Your task to perform on an android device: install app "WhatsApp Messenger" Image 0: 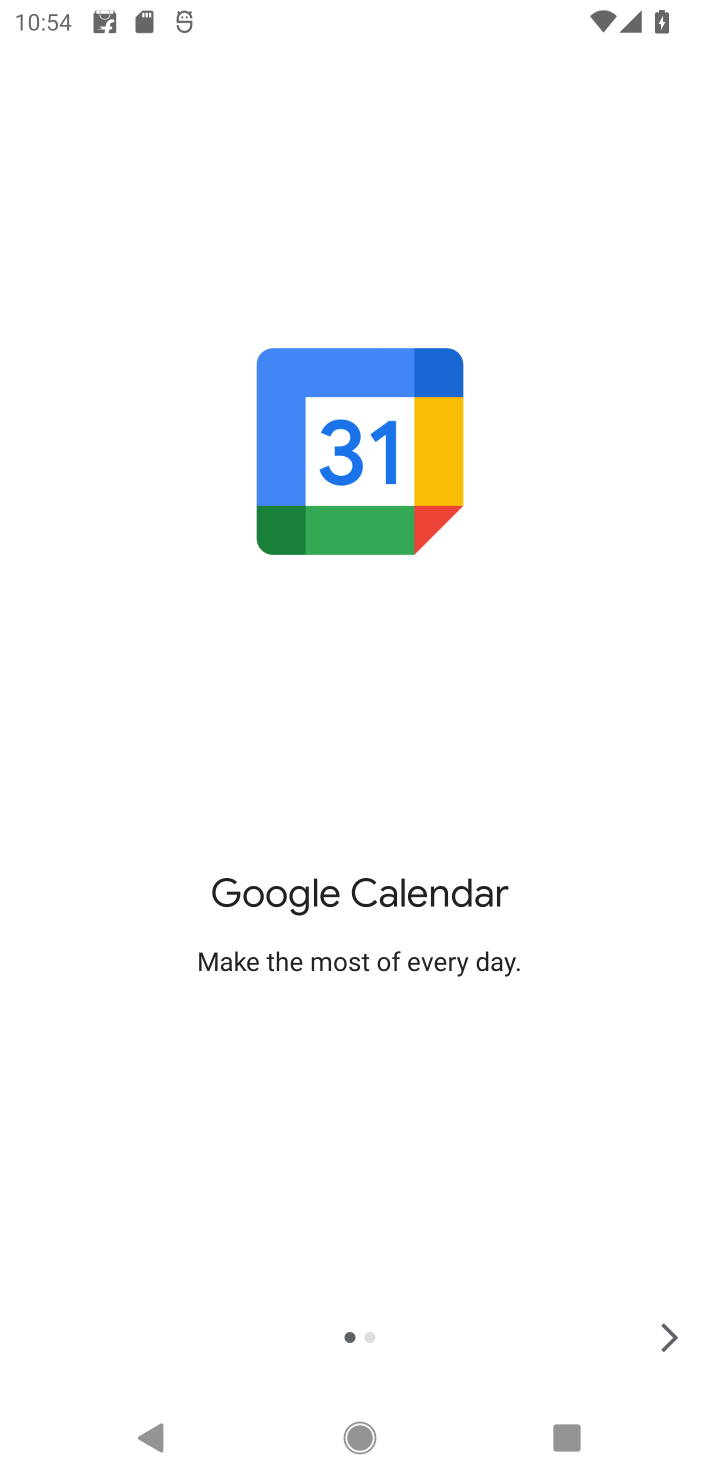
Step 0: press home button
Your task to perform on an android device: install app "WhatsApp Messenger" Image 1: 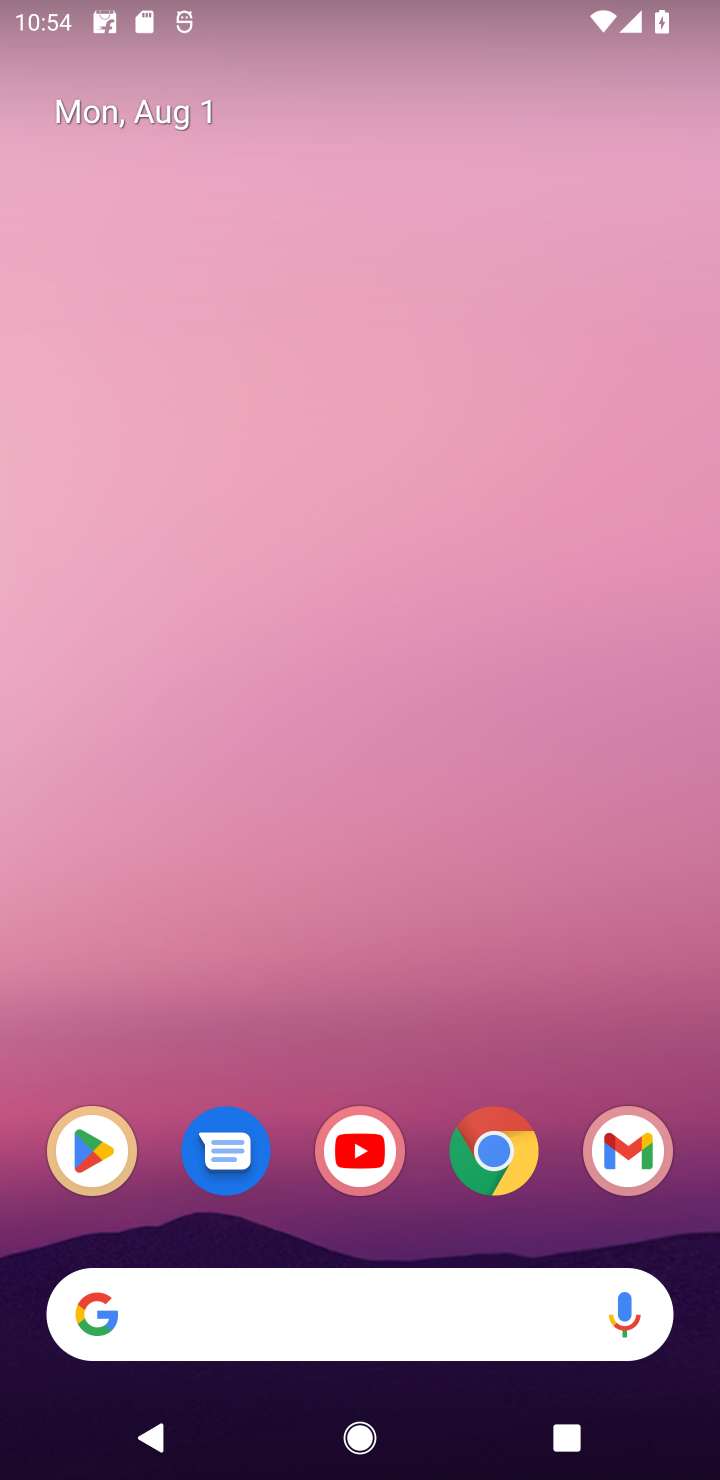
Step 1: click (108, 1168)
Your task to perform on an android device: install app "WhatsApp Messenger" Image 2: 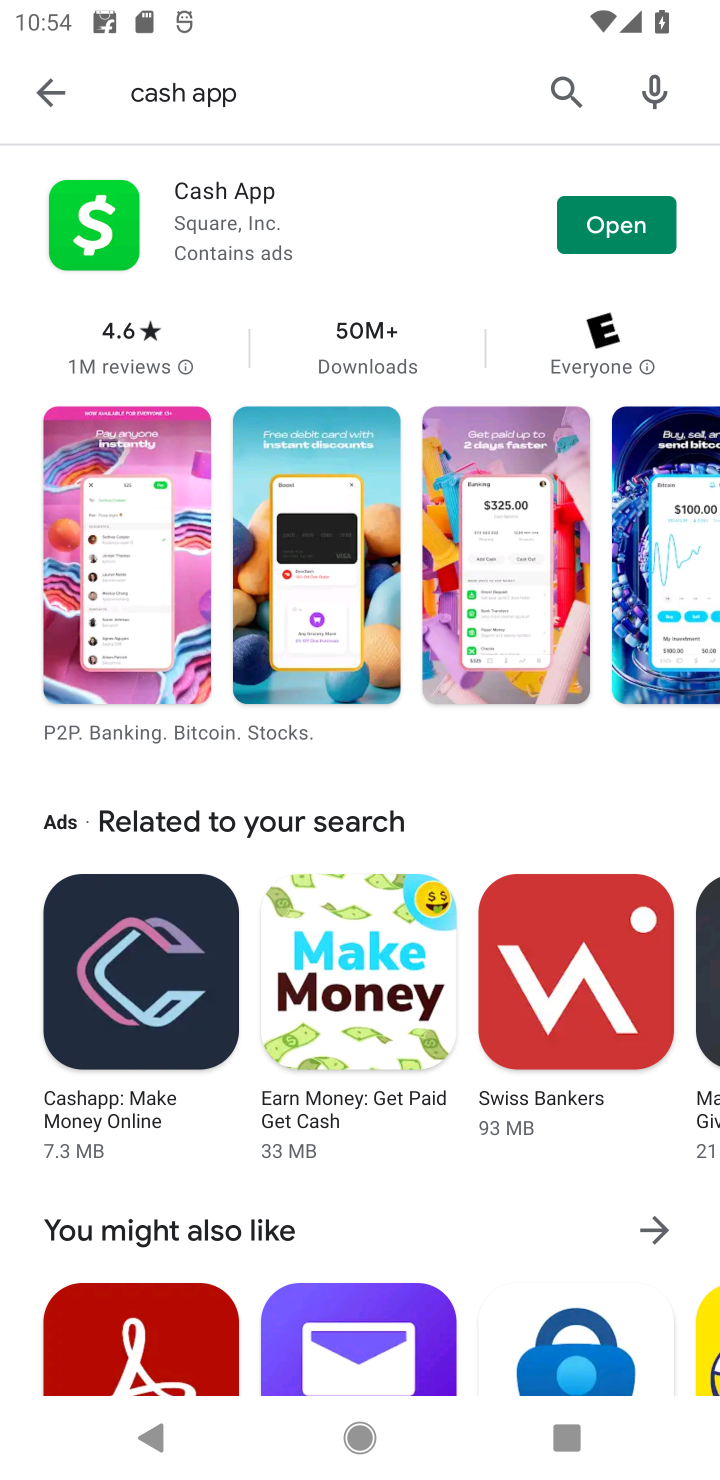
Step 2: click (571, 97)
Your task to perform on an android device: install app "WhatsApp Messenger" Image 3: 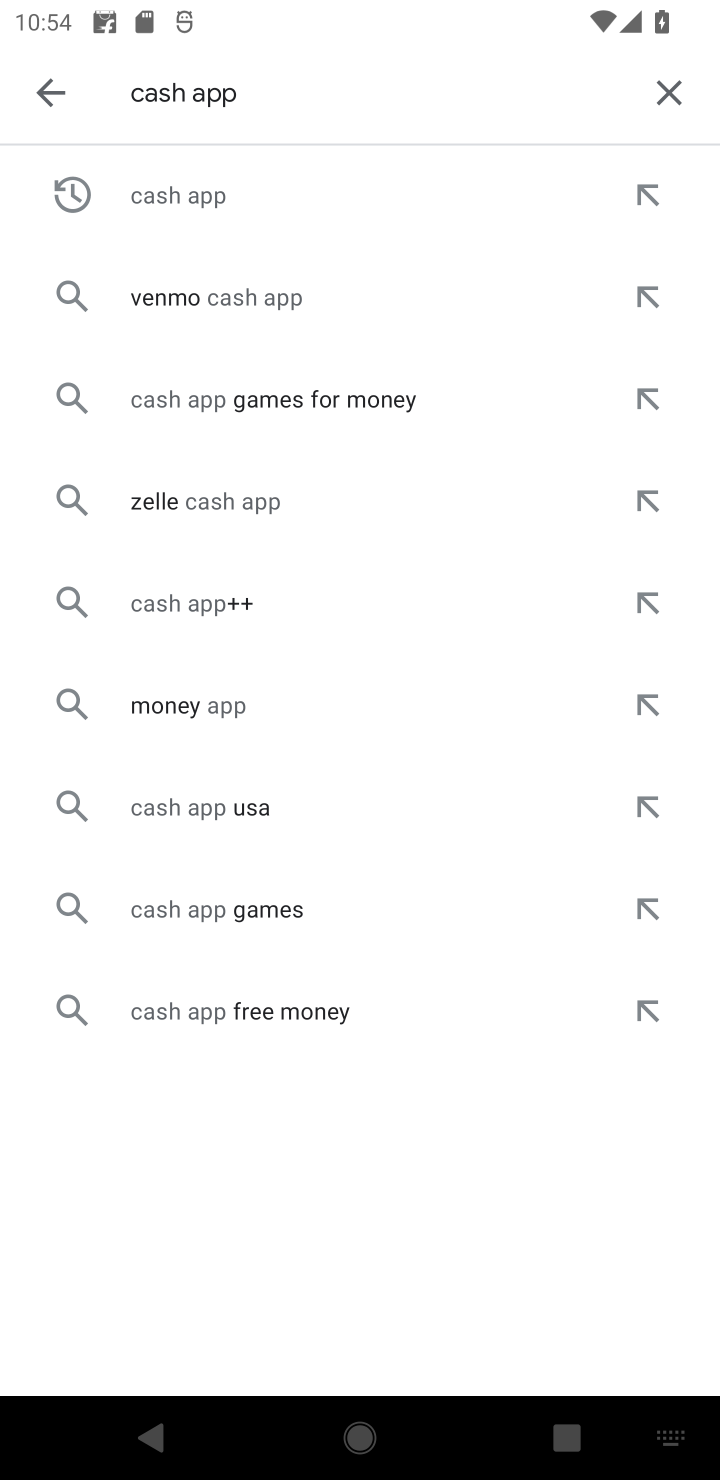
Step 3: click (669, 105)
Your task to perform on an android device: install app "WhatsApp Messenger" Image 4: 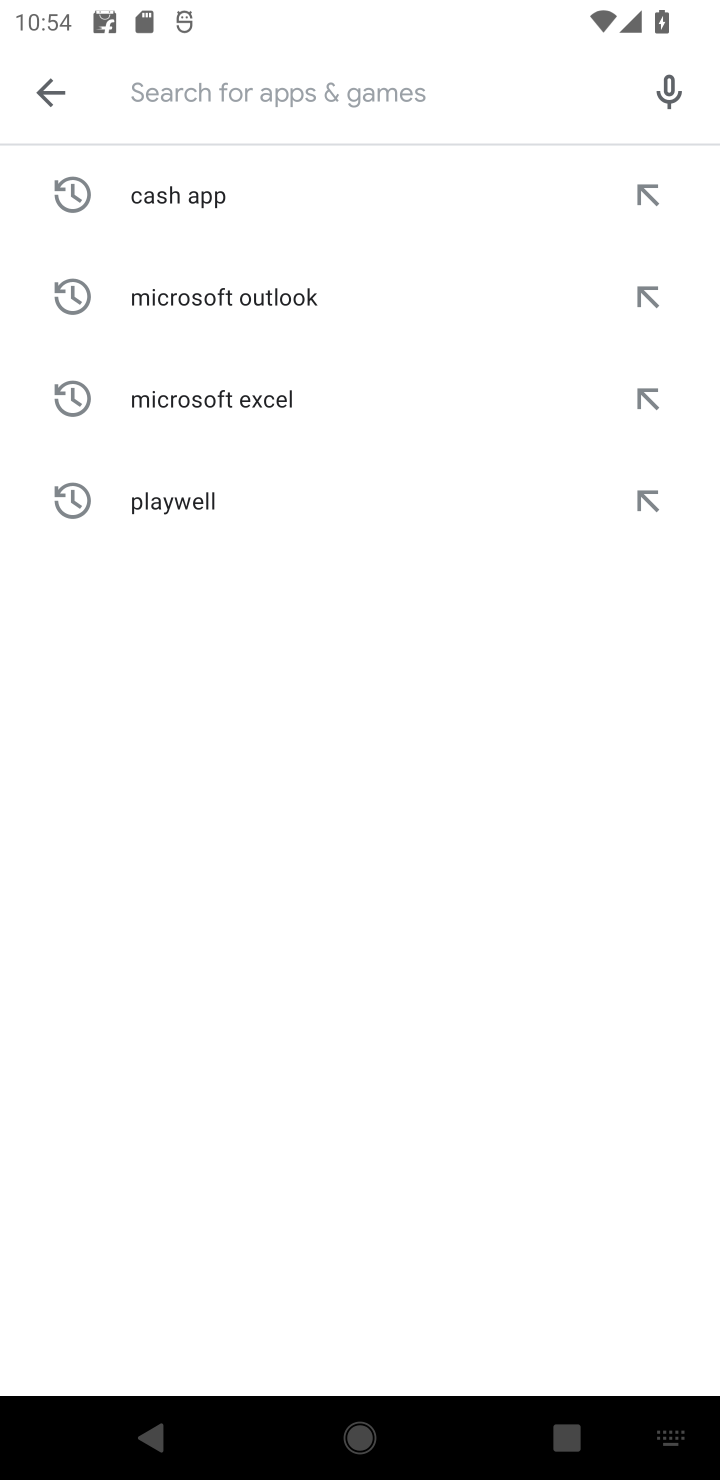
Step 4: type "WhatsApp Messenger"
Your task to perform on an android device: install app "WhatsApp Messenger" Image 5: 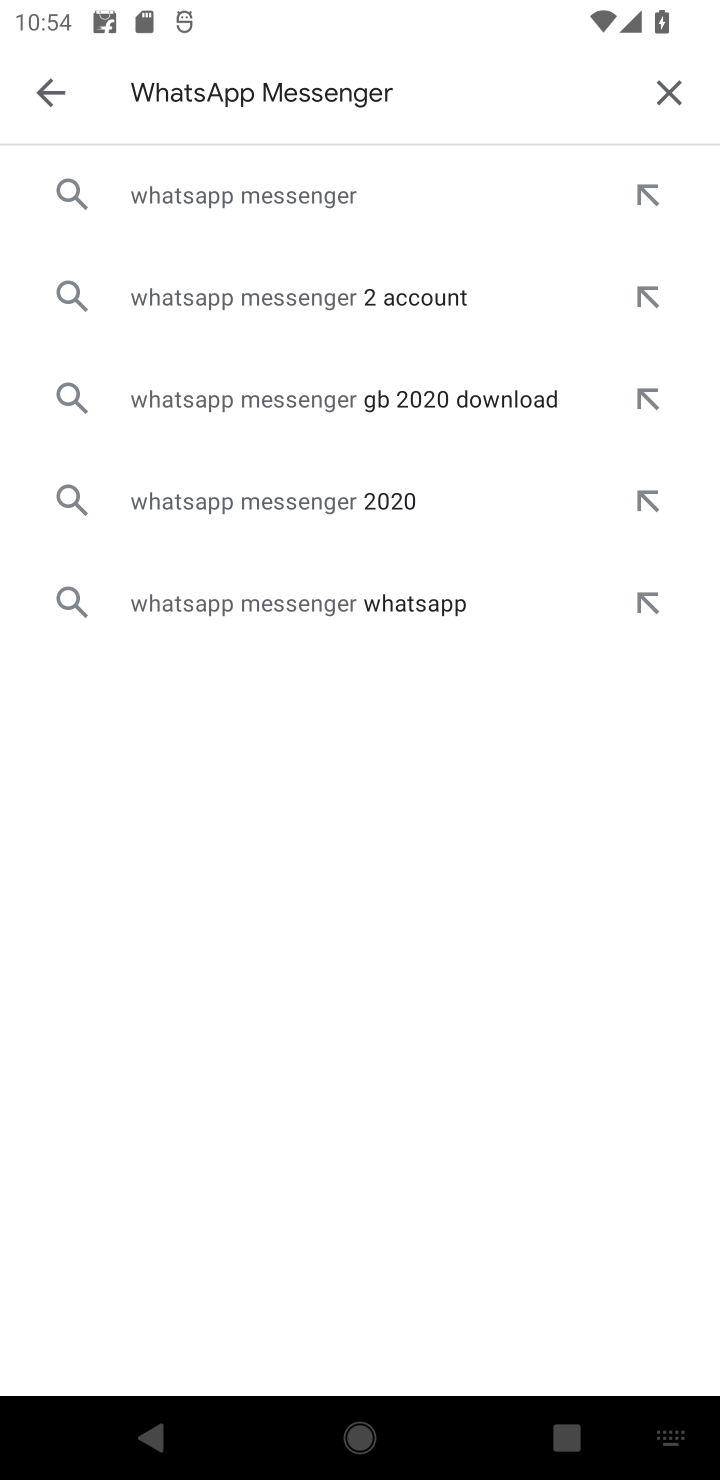
Step 5: click (277, 207)
Your task to perform on an android device: install app "WhatsApp Messenger" Image 6: 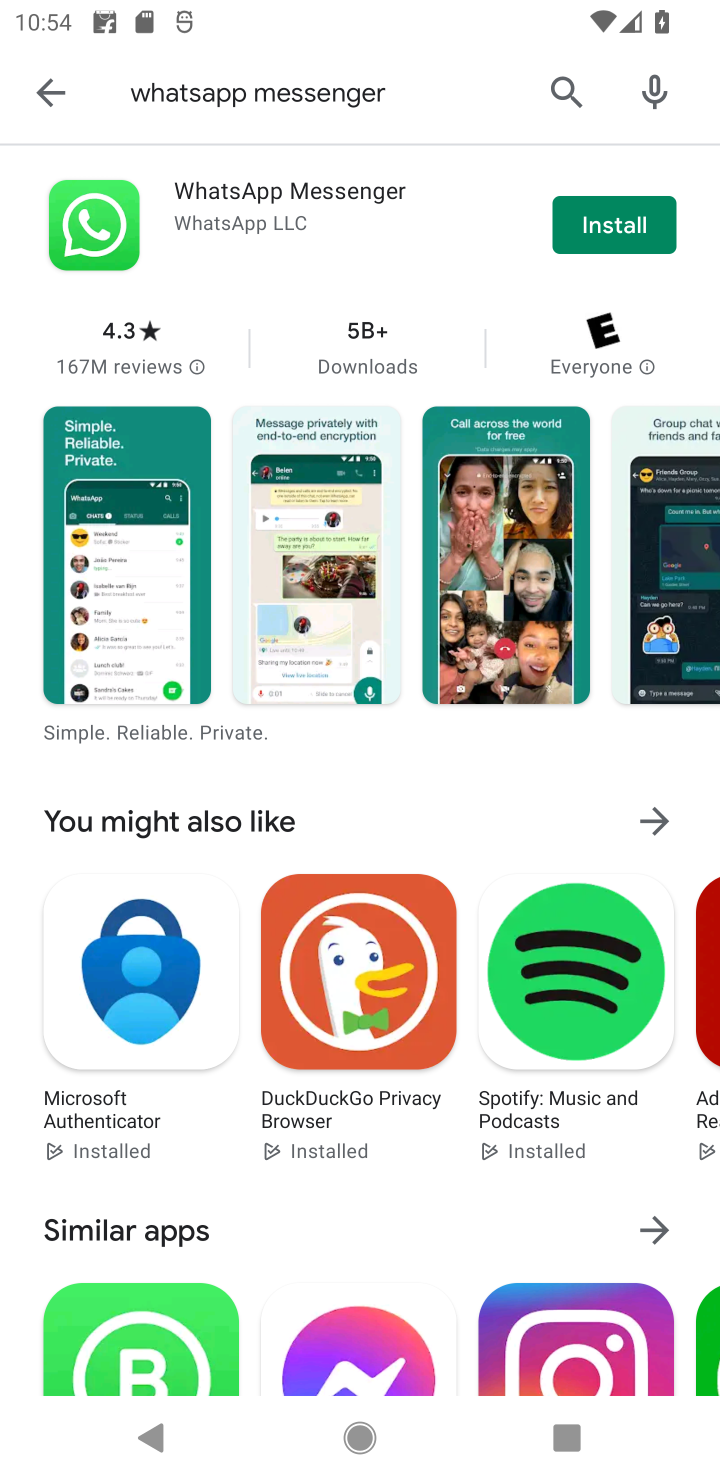
Step 6: click (647, 238)
Your task to perform on an android device: install app "WhatsApp Messenger" Image 7: 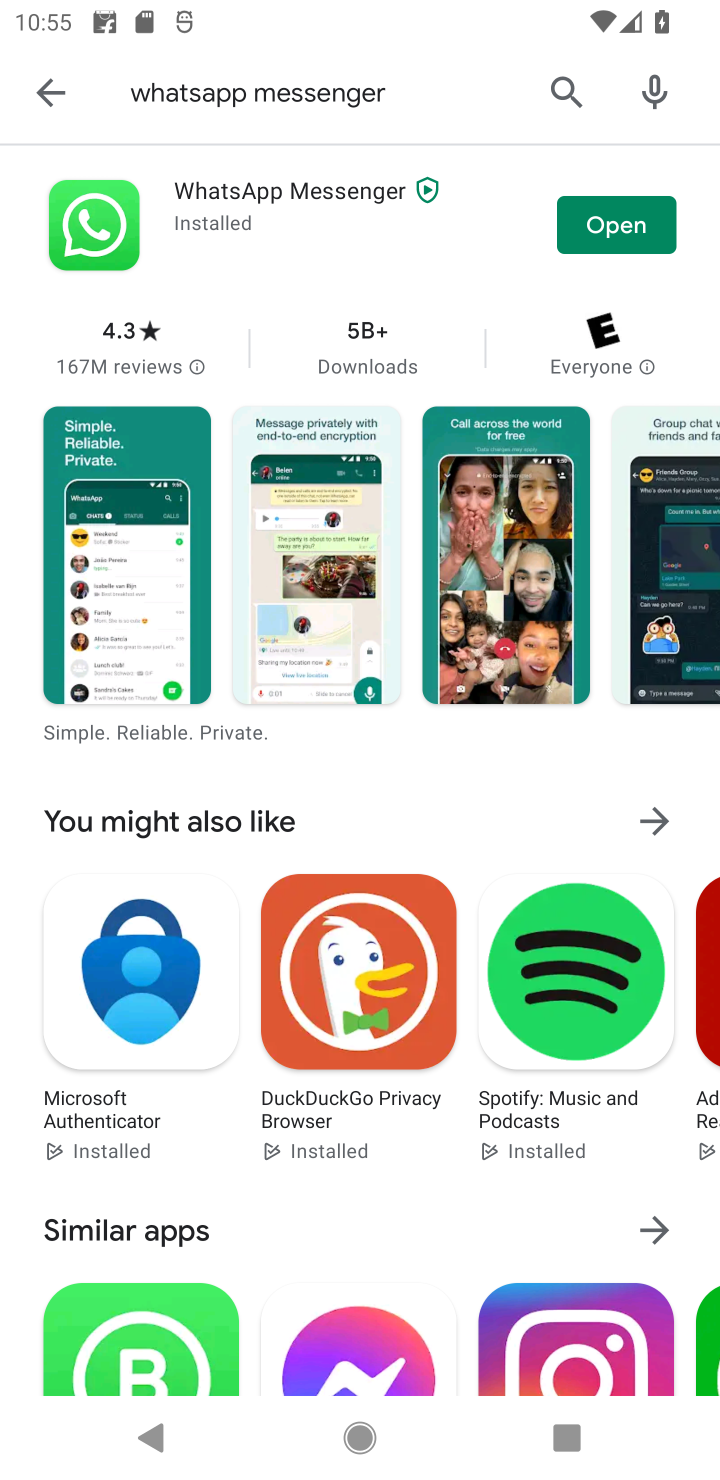
Step 7: task complete